Your task to perform on an android device: check data usage Image 0: 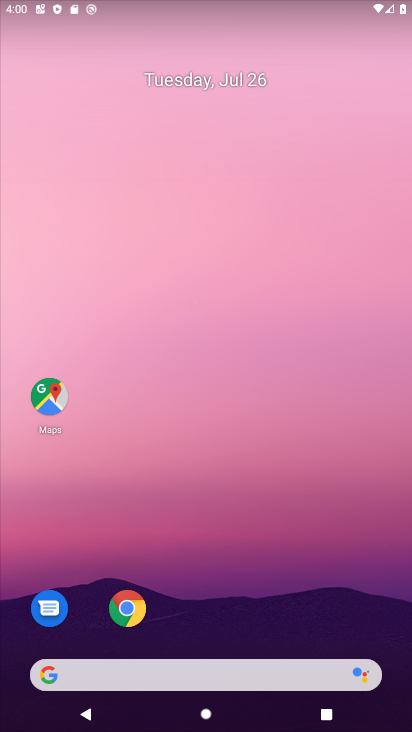
Step 0: drag from (195, 634) to (181, 101)
Your task to perform on an android device: check data usage Image 1: 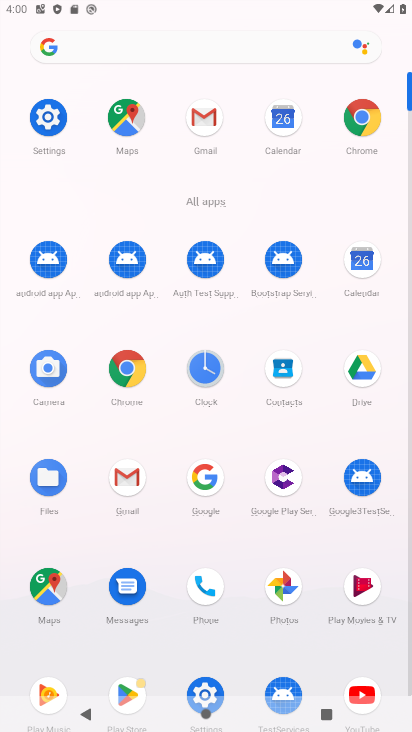
Step 1: click (52, 124)
Your task to perform on an android device: check data usage Image 2: 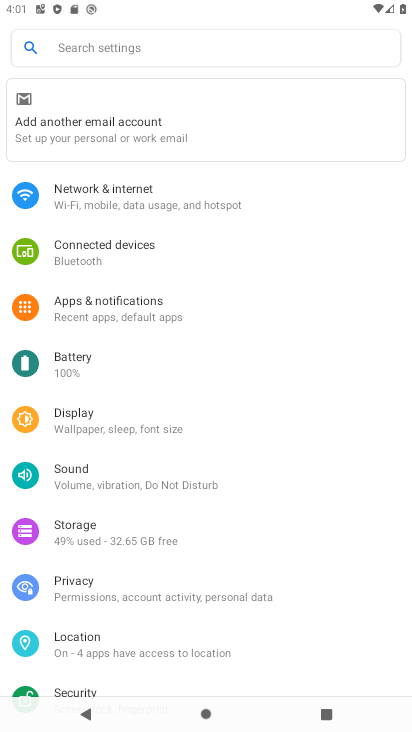
Step 2: click (86, 203)
Your task to perform on an android device: check data usage Image 3: 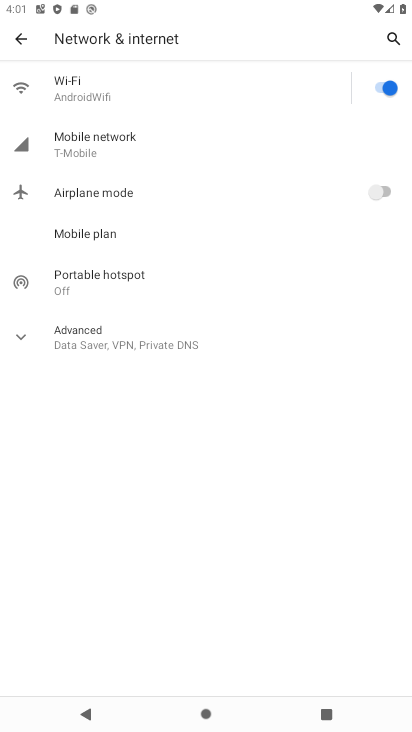
Step 3: click (97, 144)
Your task to perform on an android device: check data usage Image 4: 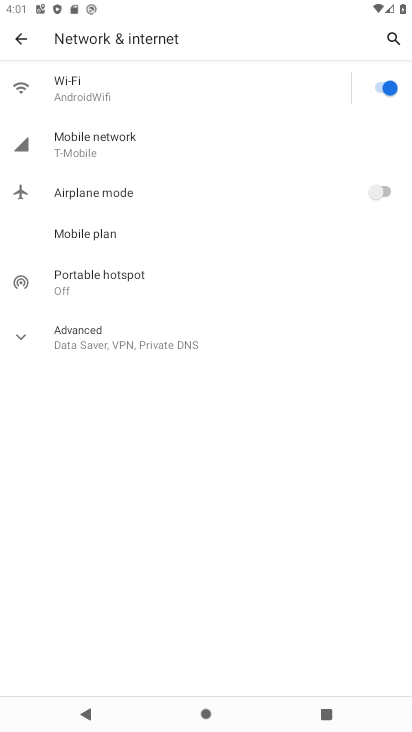
Step 4: task complete